Your task to perform on an android device: find which apps use the phone's location Image 0: 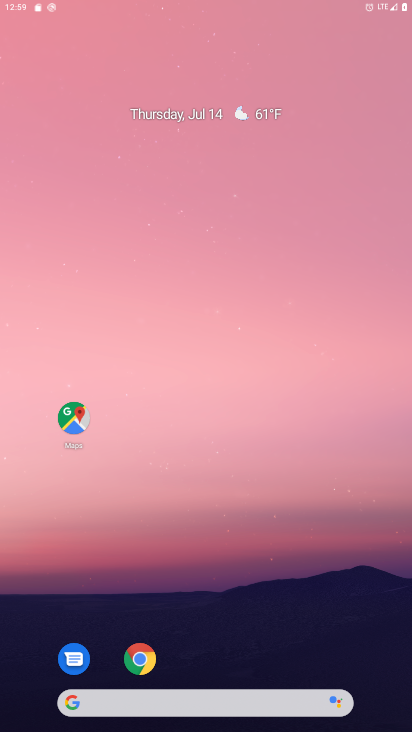
Step 0: press home button
Your task to perform on an android device: find which apps use the phone's location Image 1: 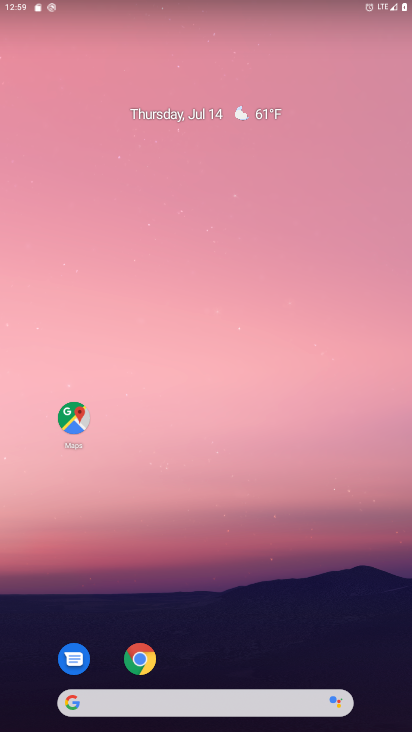
Step 1: drag from (214, 668) to (244, 78)
Your task to perform on an android device: find which apps use the phone's location Image 2: 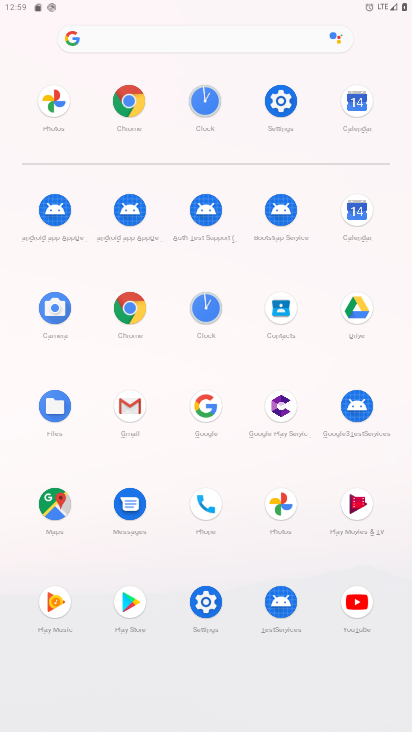
Step 2: click (282, 95)
Your task to perform on an android device: find which apps use the phone's location Image 3: 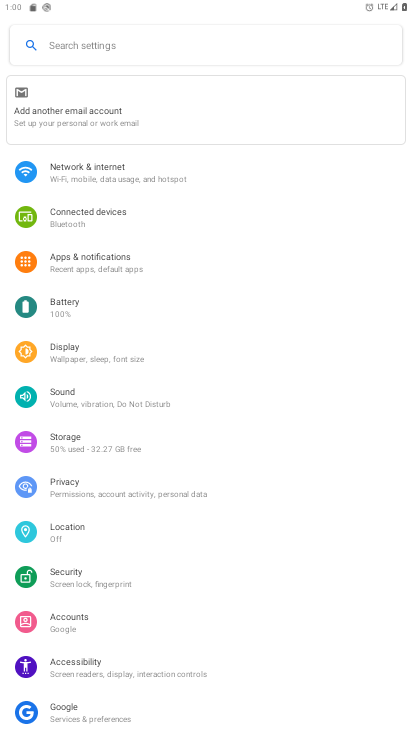
Step 3: click (79, 536)
Your task to perform on an android device: find which apps use the phone's location Image 4: 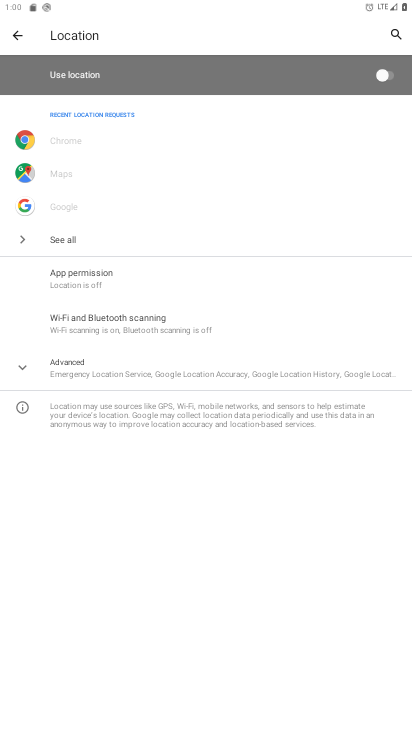
Step 4: click (105, 276)
Your task to perform on an android device: find which apps use the phone's location Image 5: 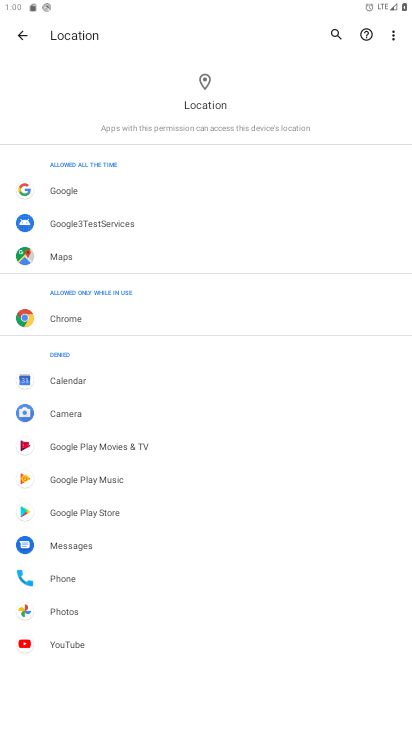
Step 5: task complete